Your task to perform on an android device: What's the weather going to be this weekend? Image 0: 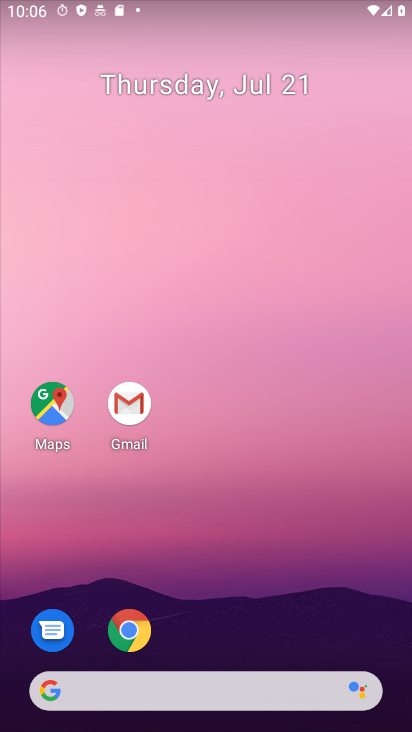
Step 0: drag from (270, 616) to (239, 47)
Your task to perform on an android device: What's the weather going to be this weekend? Image 1: 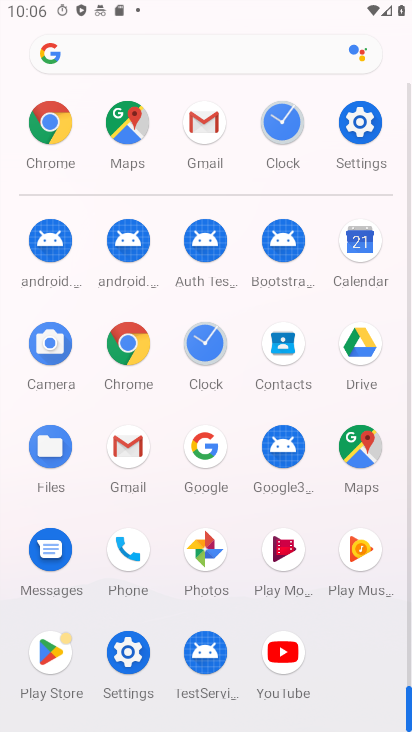
Step 1: click (55, 121)
Your task to perform on an android device: What's the weather going to be this weekend? Image 2: 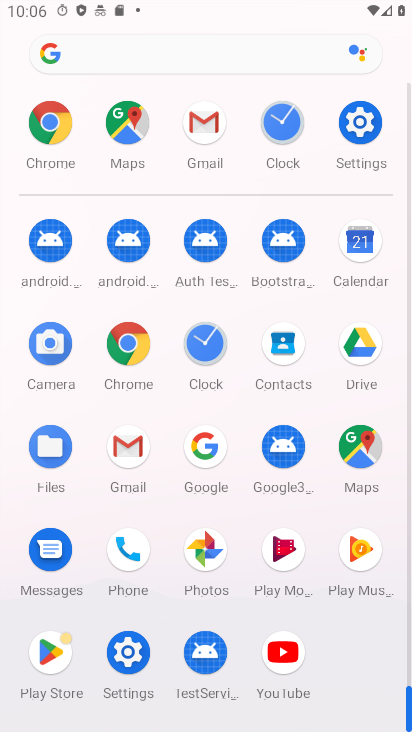
Step 2: click (55, 121)
Your task to perform on an android device: What's the weather going to be this weekend? Image 3: 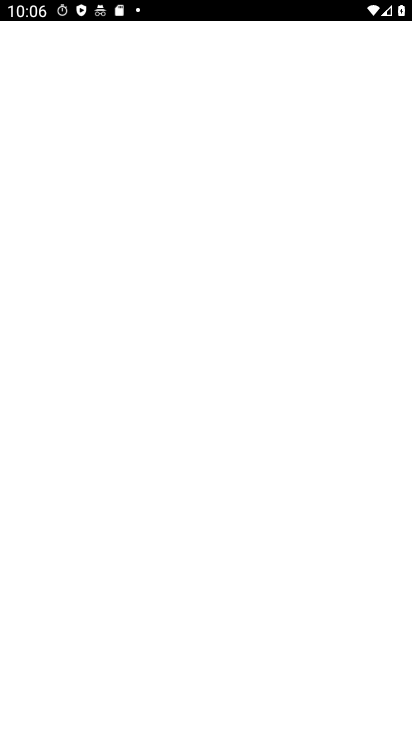
Step 3: click (42, 120)
Your task to perform on an android device: What's the weather going to be this weekend? Image 4: 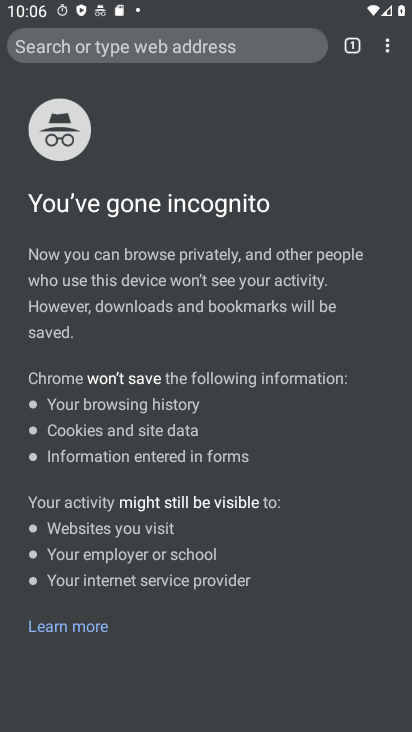
Step 4: click (376, 50)
Your task to perform on an android device: What's the weather going to be this weekend? Image 5: 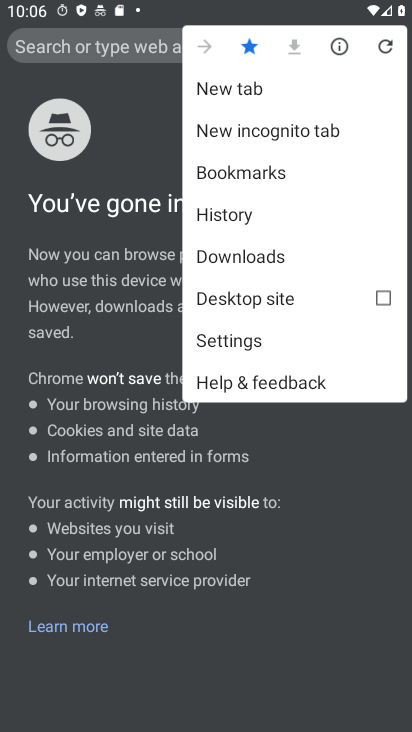
Step 5: click (223, 86)
Your task to perform on an android device: What's the weather going to be this weekend? Image 6: 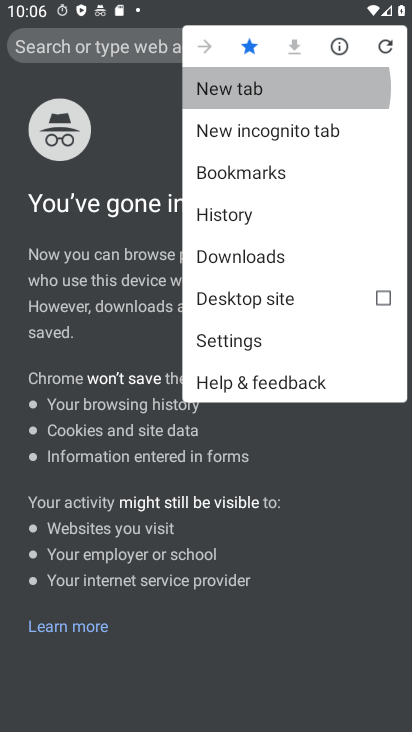
Step 6: click (222, 89)
Your task to perform on an android device: What's the weather going to be this weekend? Image 7: 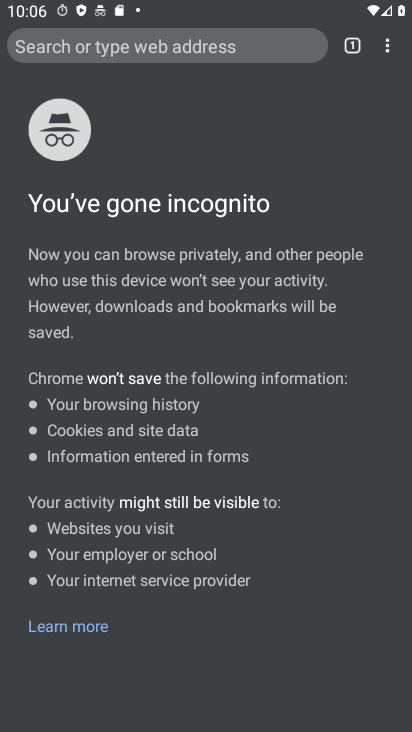
Step 7: click (222, 91)
Your task to perform on an android device: What's the weather going to be this weekend? Image 8: 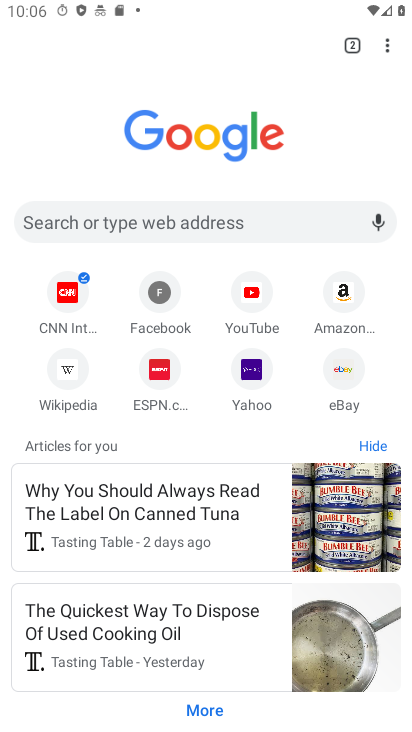
Step 8: click (80, 215)
Your task to perform on an android device: What's the weather going to be this weekend? Image 9: 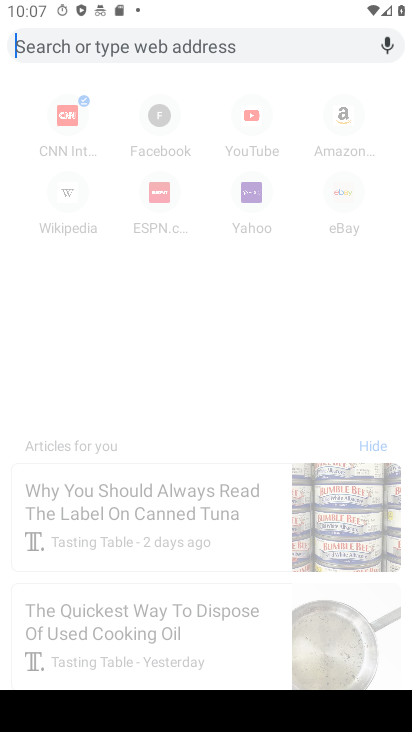
Step 9: type "what;s the weather going to be this weekend?"
Your task to perform on an android device: What's the weather going to be this weekend? Image 10: 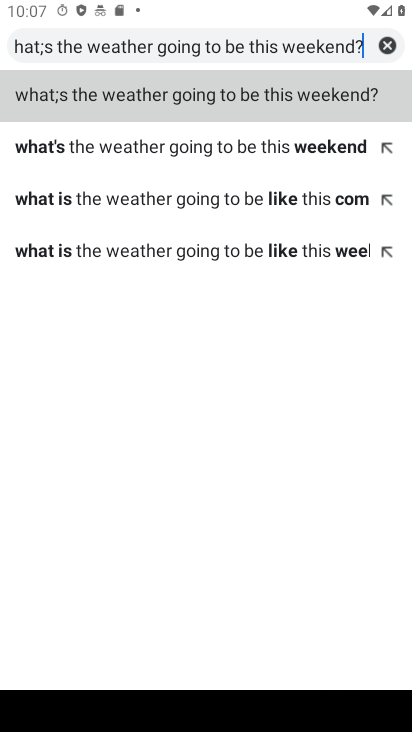
Step 10: click (254, 99)
Your task to perform on an android device: What's the weather going to be this weekend? Image 11: 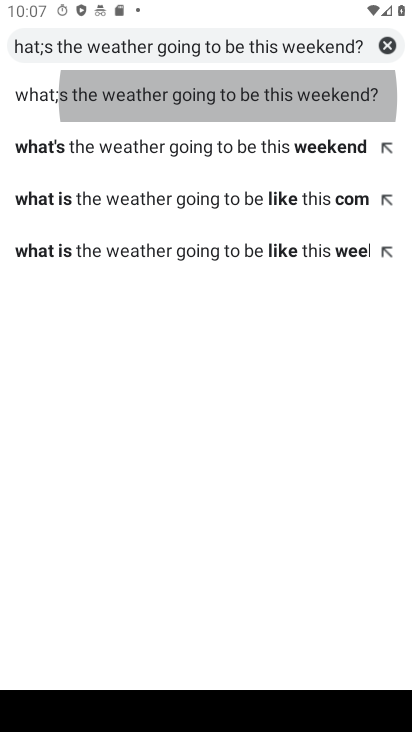
Step 11: click (254, 91)
Your task to perform on an android device: What's the weather going to be this weekend? Image 12: 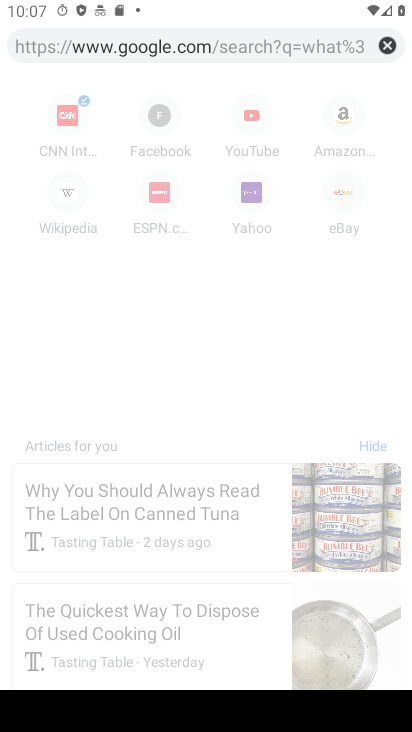
Step 12: click (254, 91)
Your task to perform on an android device: What's the weather going to be this weekend? Image 13: 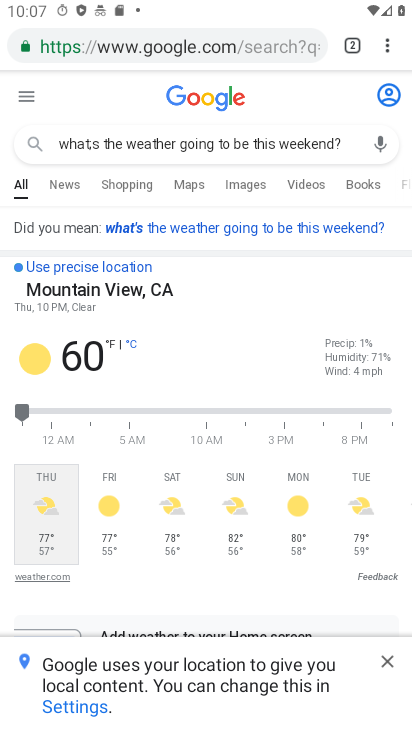
Step 13: task complete